Your task to perform on an android device: Open eBay Image 0: 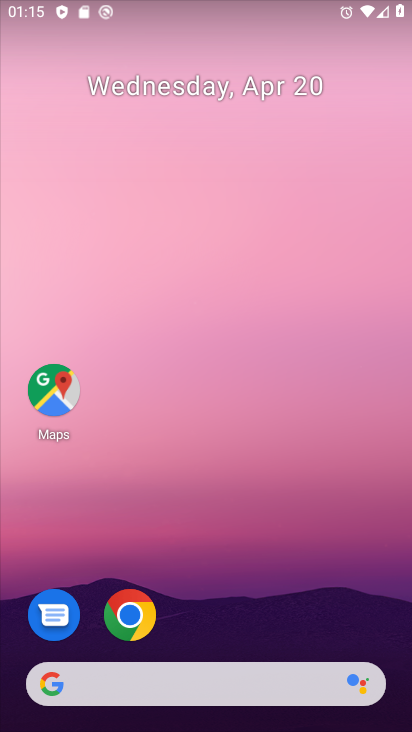
Step 0: click (144, 612)
Your task to perform on an android device: Open eBay Image 1: 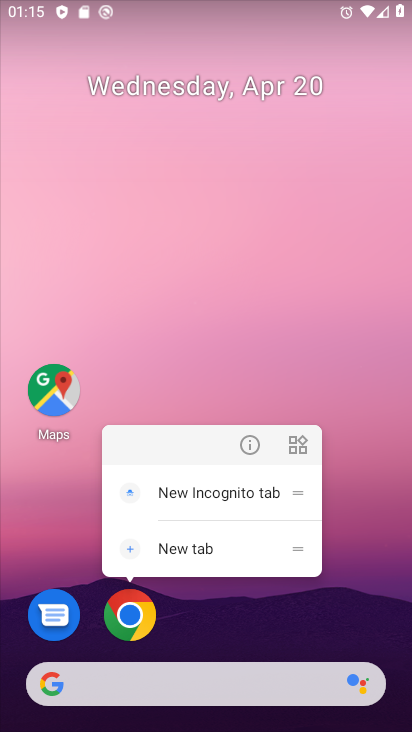
Step 1: click (122, 610)
Your task to perform on an android device: Open eBay Image 2: 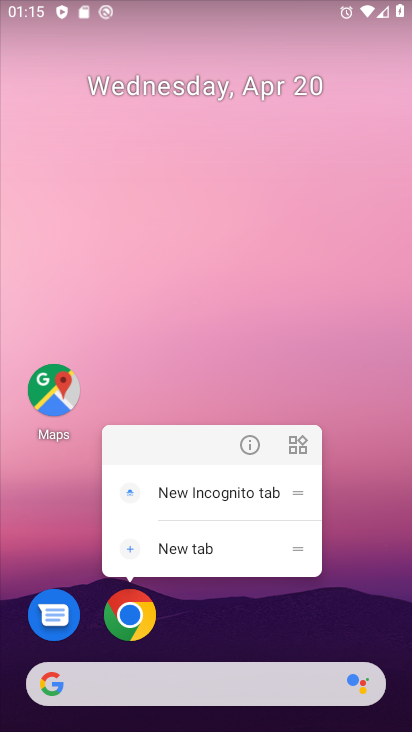
Step 2: click (122, 610)
Your task to perform on an android device: Open eBay Image 3: 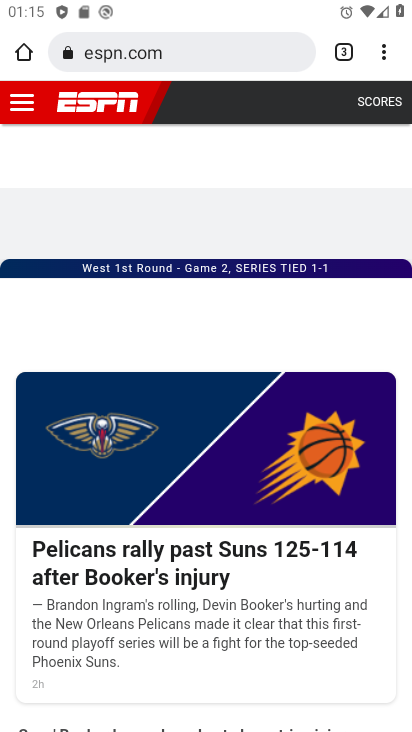
Step 3: click (180, 54)
Your task to perform on an android device: Open eBay Image 4: 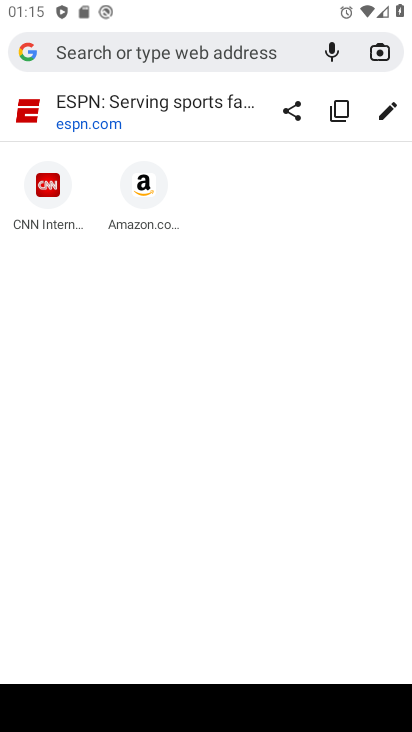
Step 4: type "Open eBay"
Your task to perform on an android device: Open eBay Image 5: 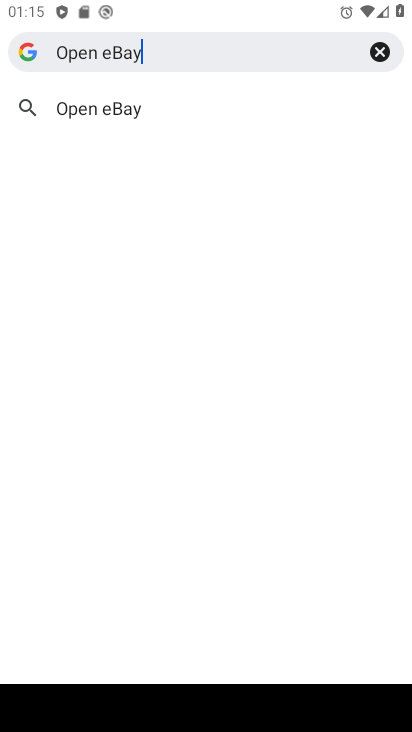
Step 5: click (100, 48)
Your task to perform on an android device: Open eBay Image 6: 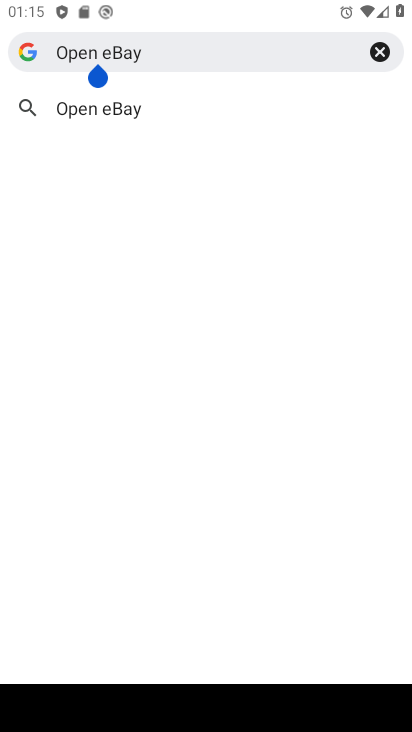
Step 6: click (97, 53)
Your task to perform on an android device: Open eBay Image 7: 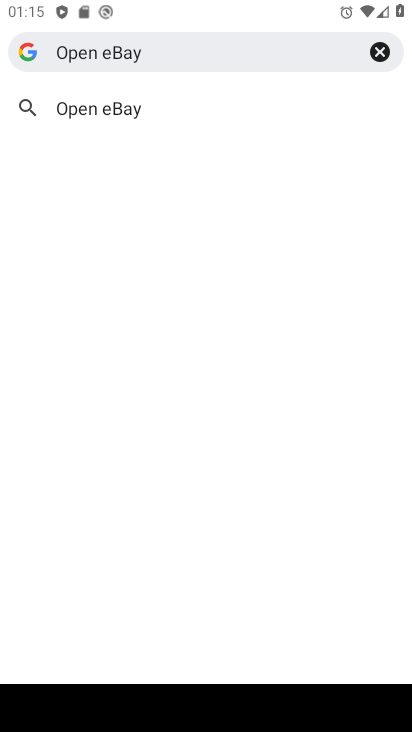
Step 7: click (384, 47)
Your task to perform on an android device: Open eBay Image 8: 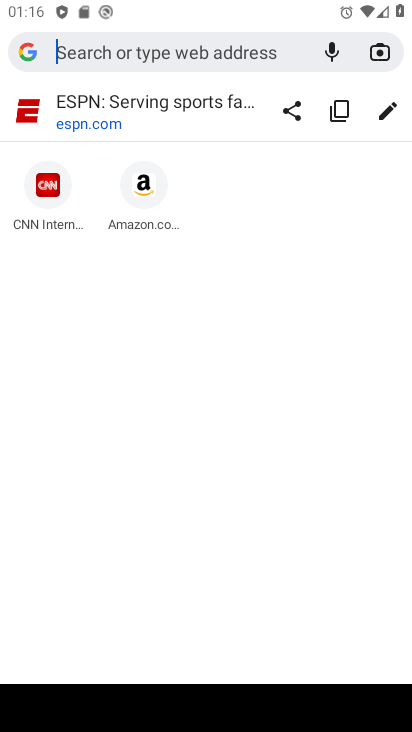
Step 8: click (133, 55)
Your task to perform on an android device: Open eBay Image 9: 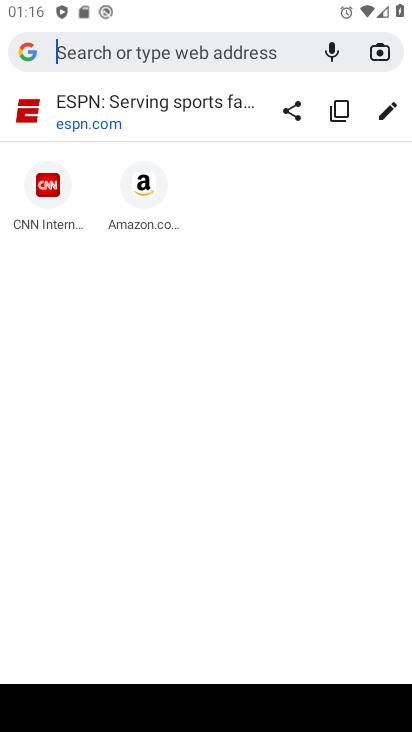
Step 9: type "eBay"
Your task to perform on an android device: Open eBay Image 10: 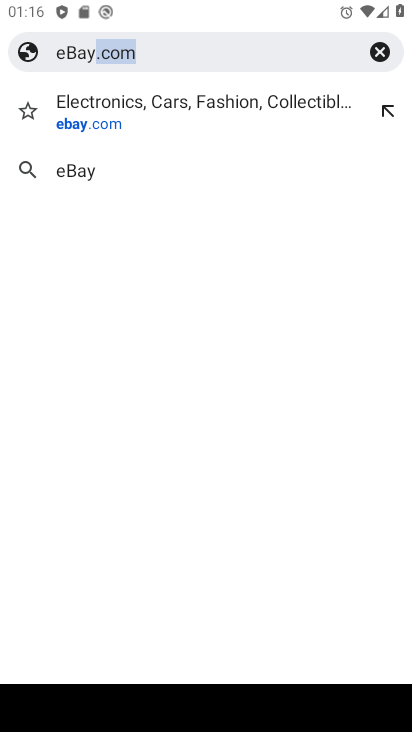
Step 10: click (98, 116)
Your task to perform on an android device: Open eBay Image 11: 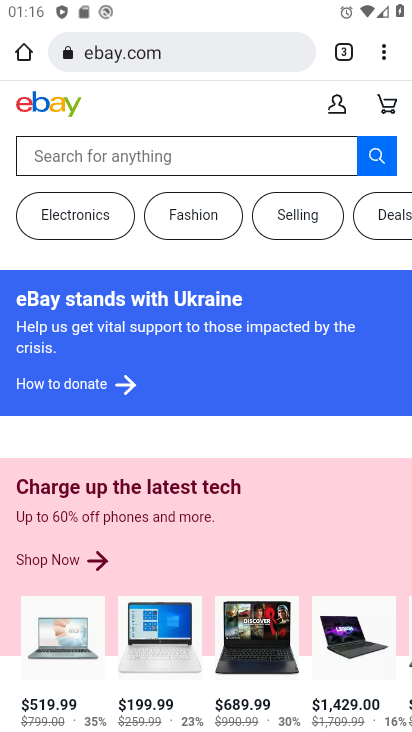
Step 11: task complete